Your task to perform on an android device: all mails in gmail Image 0: 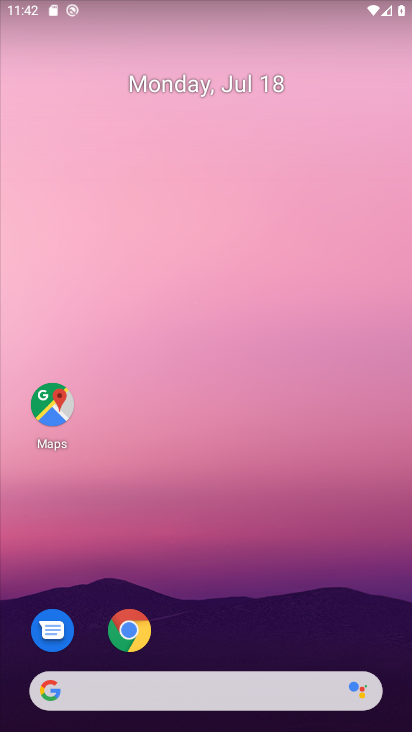
Step 0: drag from (210, 642) to (192, 32)
Your task to perform on an android device: all mails in gmail Image 1: 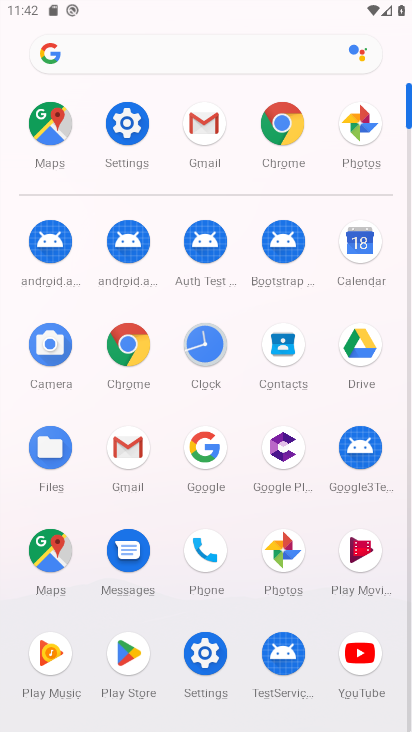
Step 1: click (137, 468)
Your task to perform on an android device: all mails in gmail Image 2: 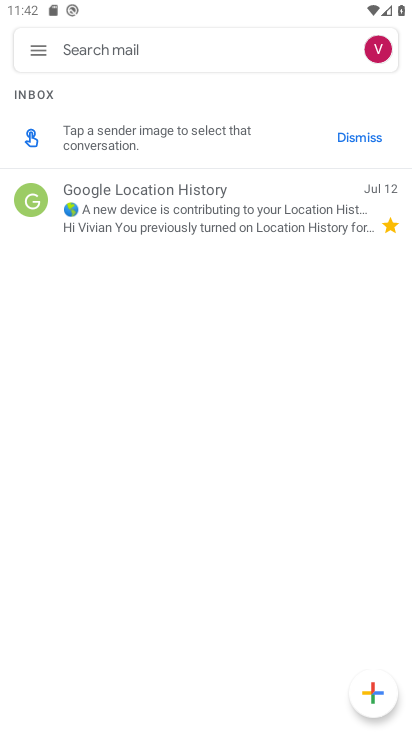
Step 2: click (29, 51)
Your task to perform on an android device: all mails in gmail Image 3: 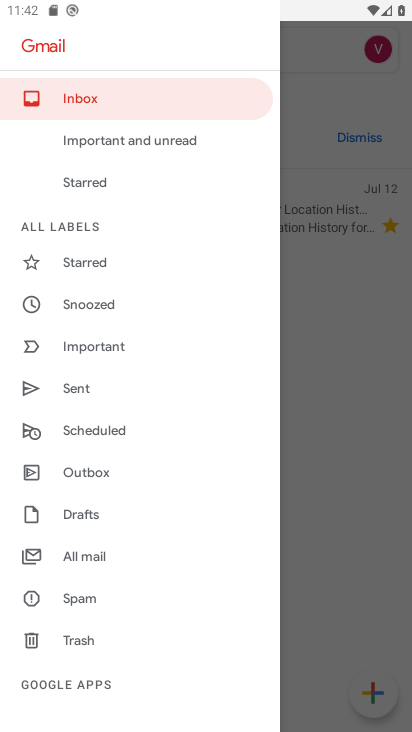
Step 3: click (90, 554)
Your task to perform on an android device: all mails in gmail Image 4: 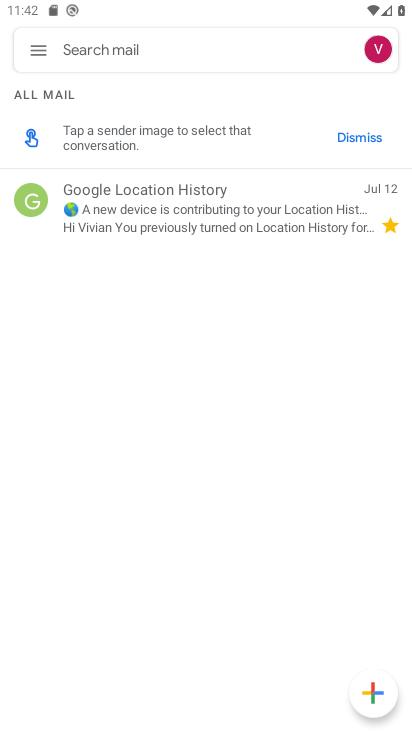
Step 4: task complete